Your task to perform on an android device: Open Google Image 0: 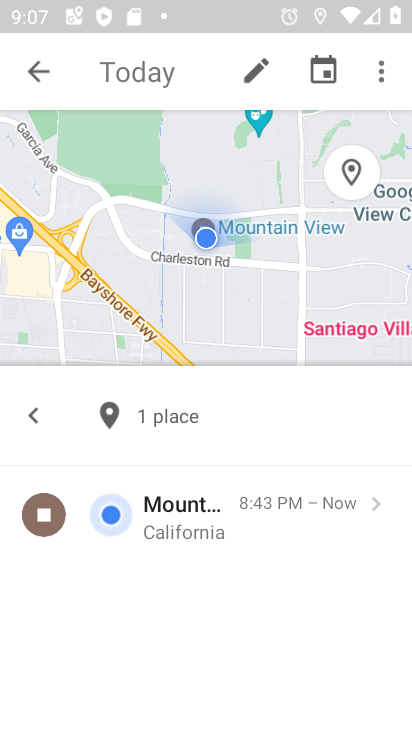
Step 0: press home button
Your task to perform on an android device: Open Google Image 1: 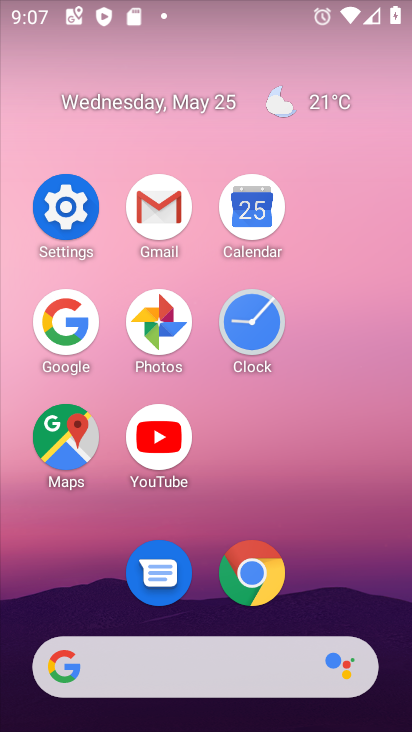
Step 1: click (72, 330)
Your task to perform on an android device: Open Google Image 2: 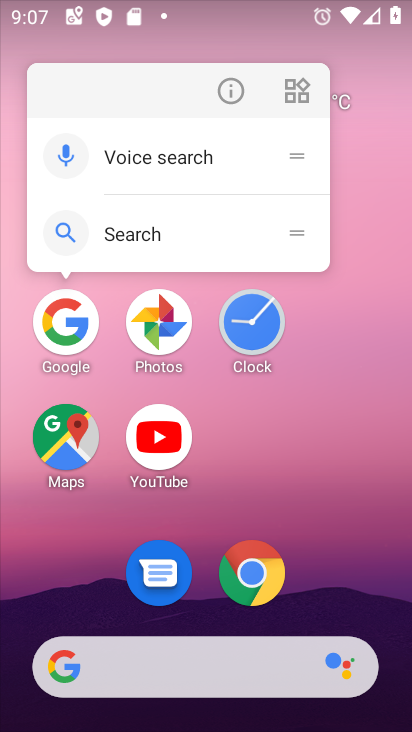
Step 2: click (57, 336)
Your task to perform on an android device: Open Google Image 3: 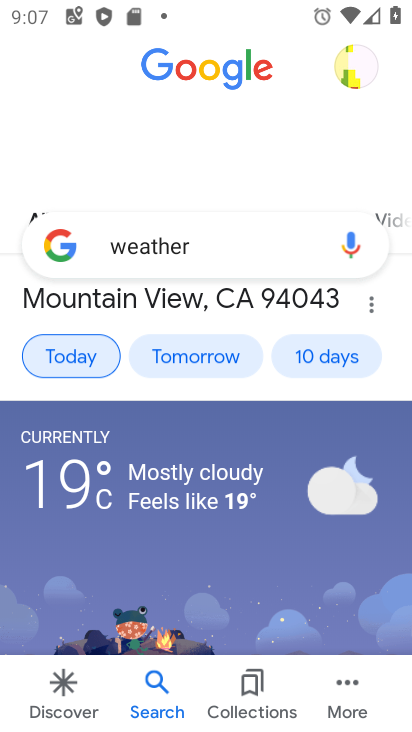
Step 3: task complete